Your task to perform on an android device: turn off notifications in google photos Image 0: 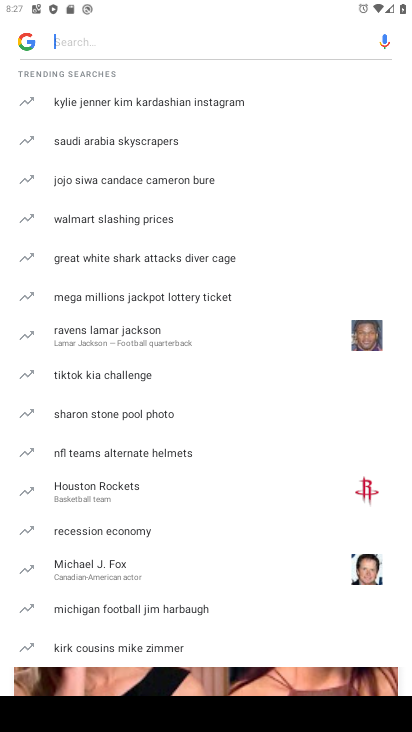
Step 0: press home button
Your task to perform on an android device: turn off notifications in google photos Image 1: 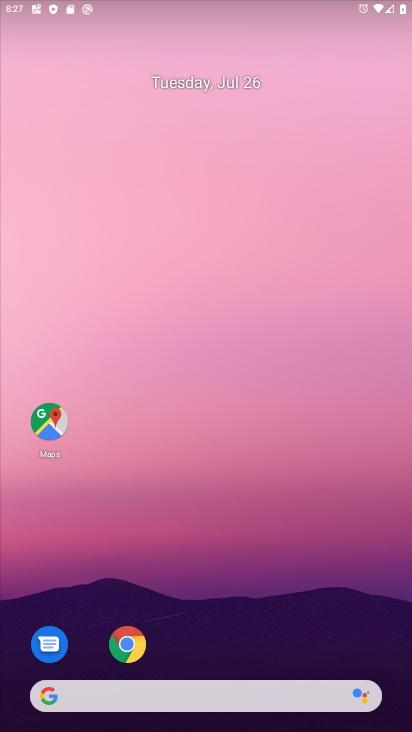
Step 1: drag from (260, 618) to (256, 49)
Your task to perform on an android device: turn off notifications in google photos Image 2: 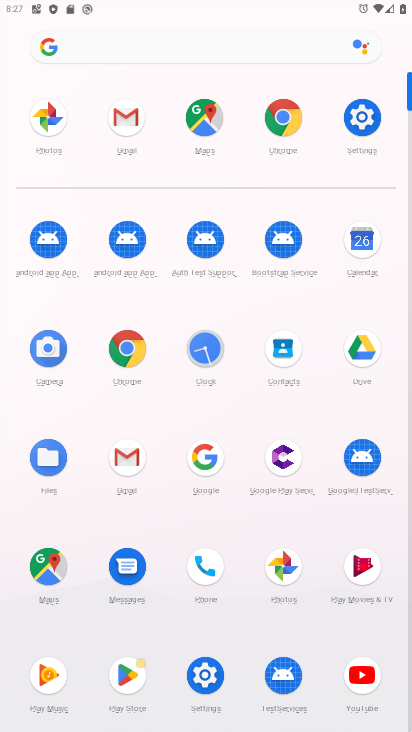
Step 2: click (275, 553)
Your task to perform on an android device: turn off notifications in google photos Image 3: 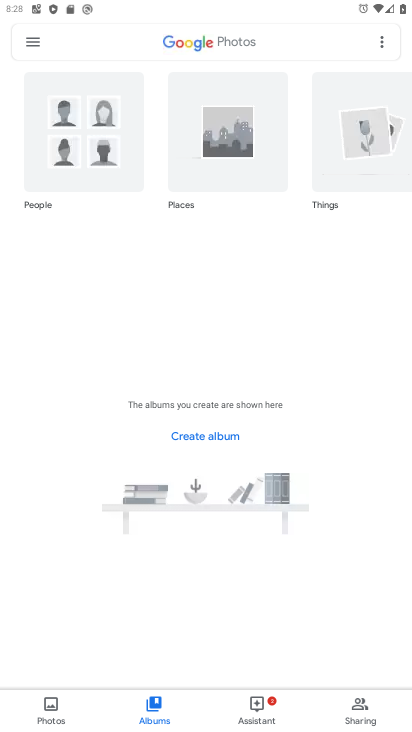
Step 3: click (30, 39)
Your task to perform on an android device: turn off notifications in google photos Image 4: 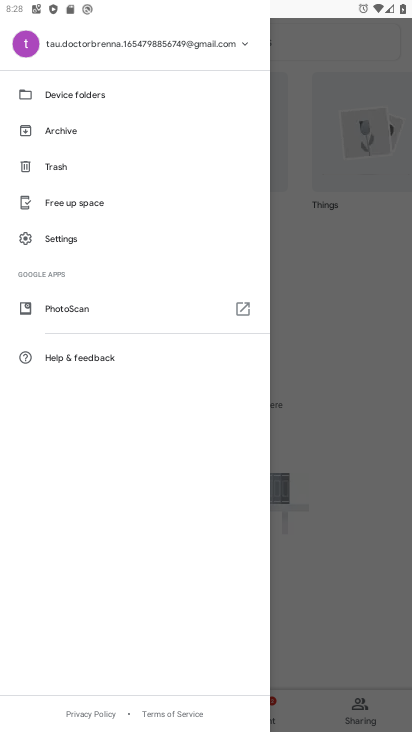
Step 4: click (62, 219)
Your task to perform on an android device: turn off notifications in google photos Image 5: 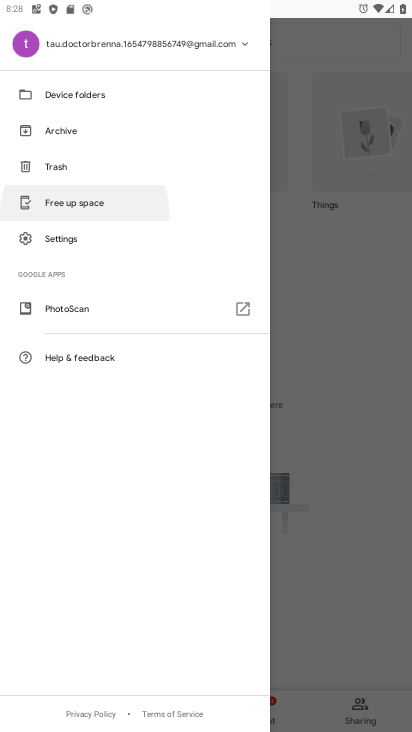
Step 5: click (62, 224)
Your task to perform on an android device: turn off notifications in google photos Image 6: 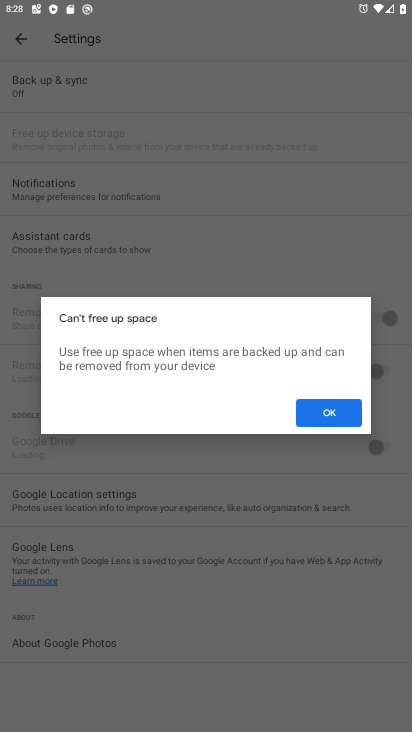
Step 6: click (27, 43)
Your task to perform on an android device: turn off notifications in google photos Image 7: 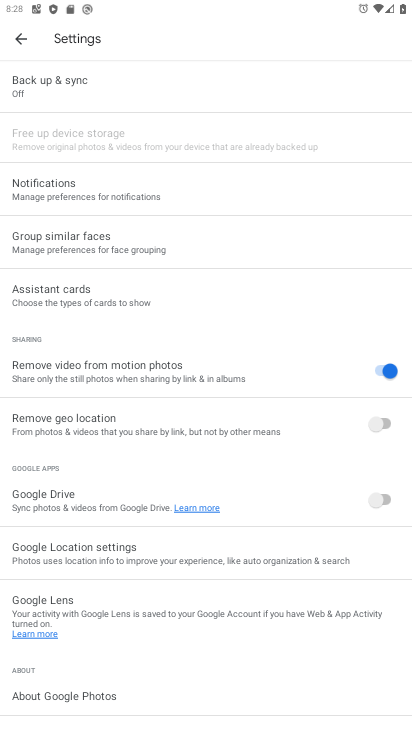
Step 7: drag from (29, 37) to (0, 218)
Your task to perform on an android device: turn off notifications in google photos Image 8: 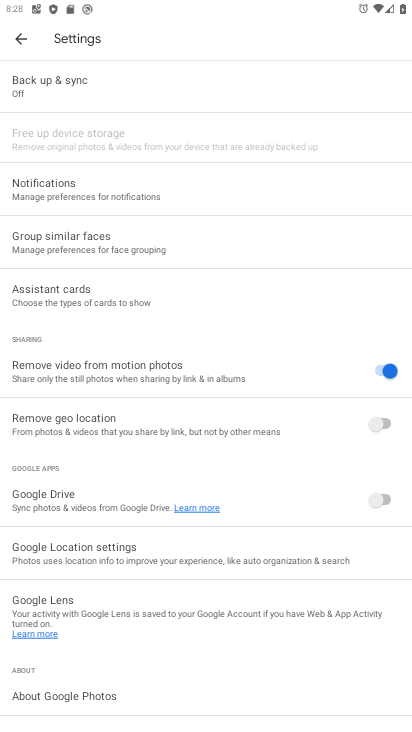
Step 8: click (37, 197)
Your task to perform on an android device: turn off notifications in google photos Image 9: 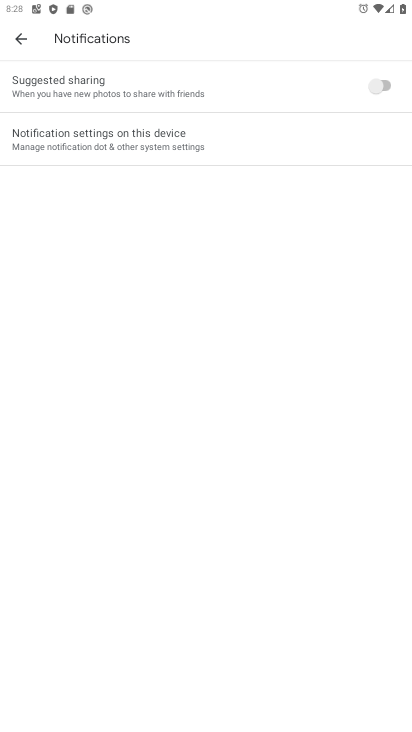
Step 9: click (132, 157)
Your task to perform on an android device: turn off notifications in google photos Image 10: 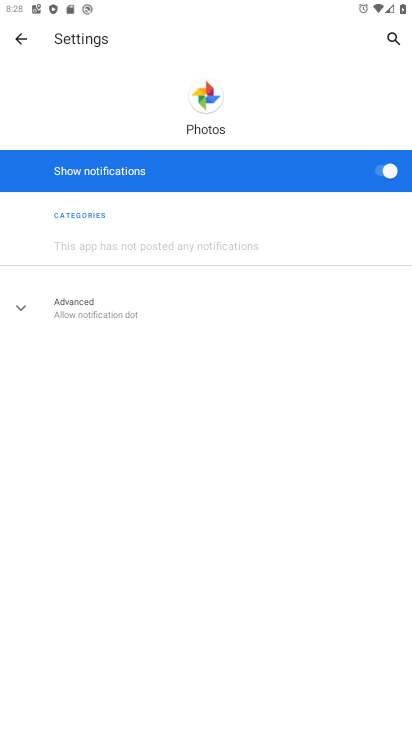
Step 10: click (371, 172)
Your task to perform on an android device: turn off notifications in google photos Image 11: 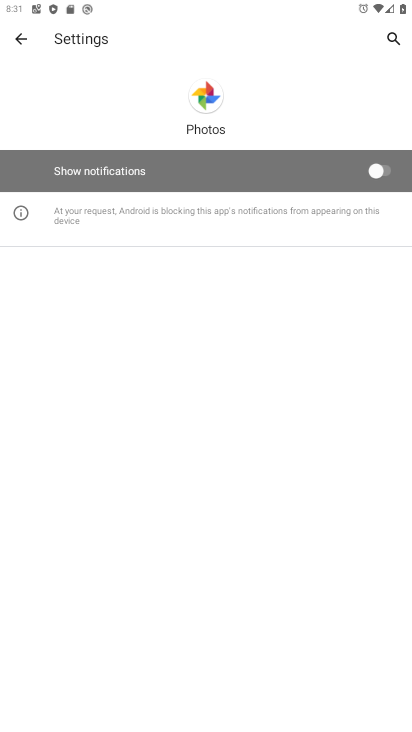
Step 11: task complete